Your task to perform on an android device: turn on bluetooth scan Image 0: 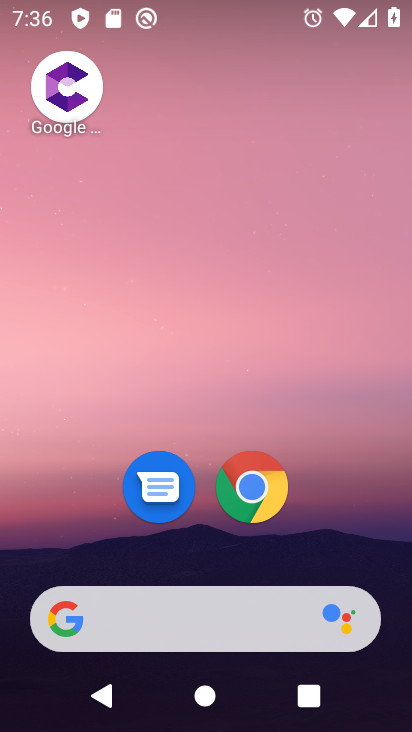
Step 0: drag from (335, 518) to (345, 187)
Your task to perform on an android device: turn on bluetooth scan Image 1: 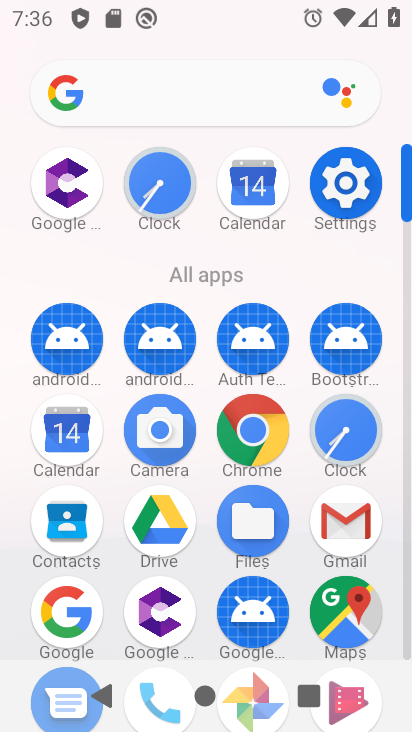
Step 1: click (337, 171)
Your task to perform on an android device: turn on bluetooth scan Image 2: 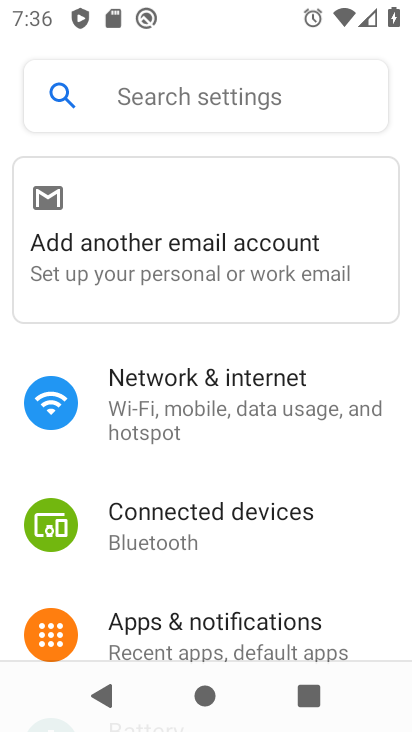
Step 2: click (161, 542)
Your task to perform on an android device: turn on bluetooth scan Image 3: 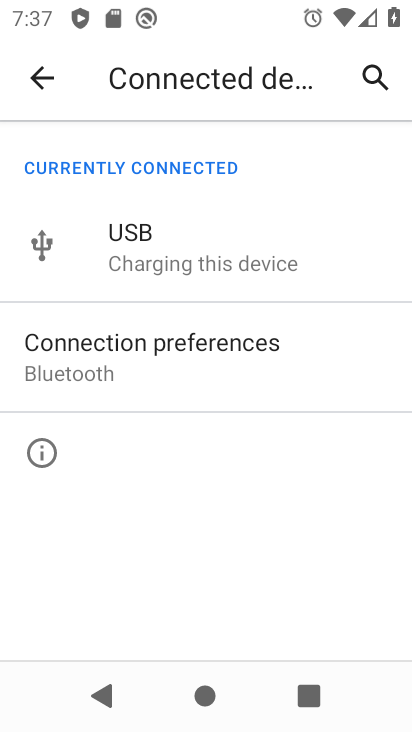
Step 3: click (248, 366)
Your task to perform on an android device: turn on bluetooth scan Image 4: 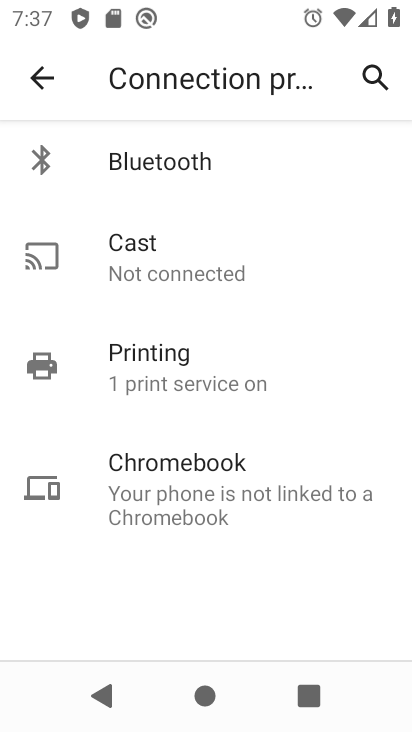
Step 4: click (203, 173)
Your task to perform on an android device: turn on bluetooth scan Image 5: 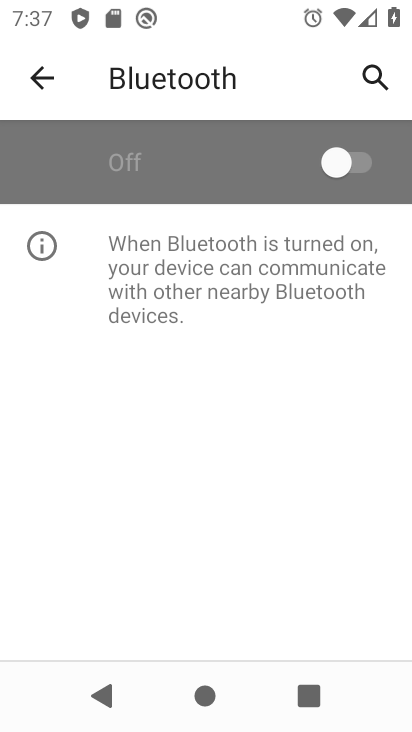
Step 5: task complete